Your task to perform on an android device: set default search engine in the chrome app Image 0: 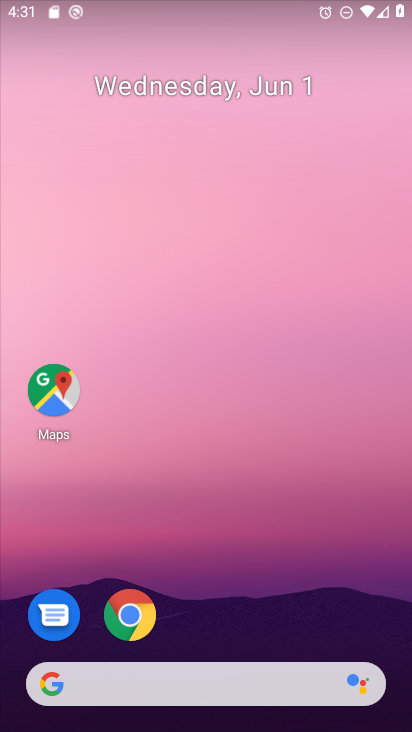
Step 0: press home button
Your task to perform on an android device: set default search engine in the chrome app Image 1: 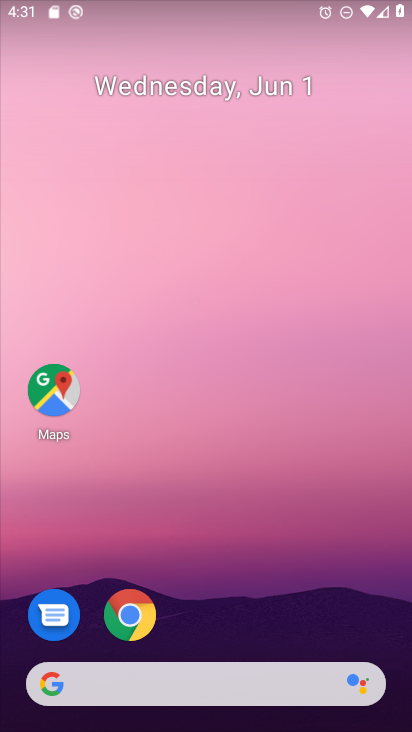
Step 1: click (133, 613)
Your task to perform on an android device: set default search engine in the chrome app Image 2: 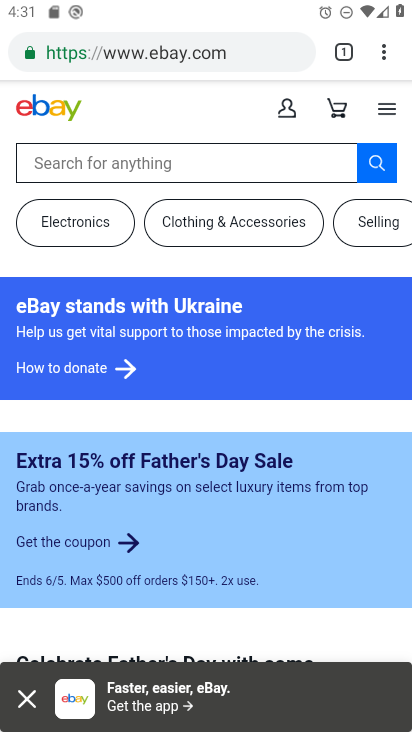
Step 2: click (386, 56)
Your task to perform on an android device: set default search engine in the chrome app Image 3: 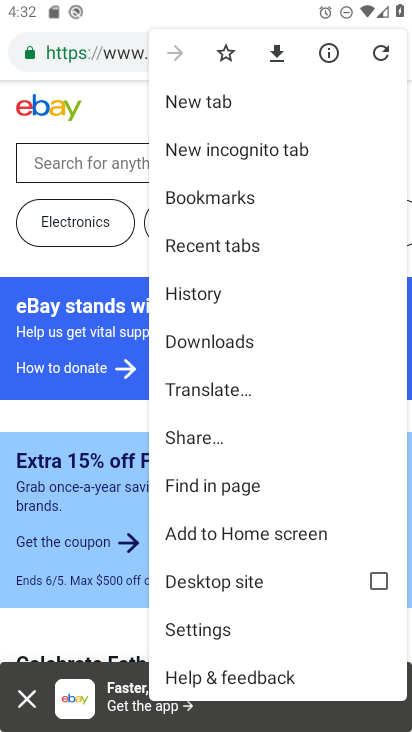
Step 3: click (238, 626)
Your task to perform on an android device: set default search engine in the chrome app Image 4: 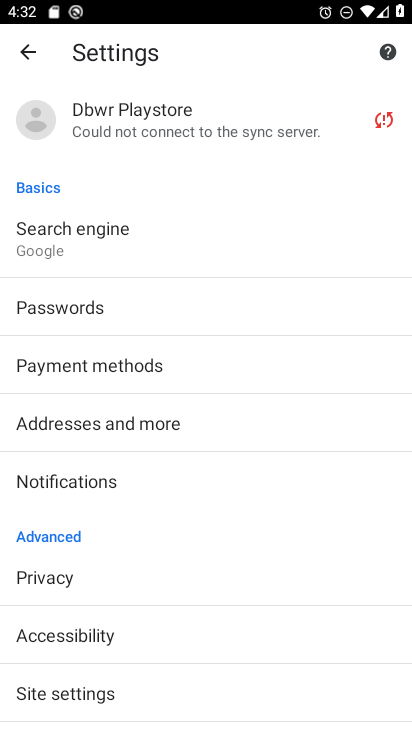
Step 4: click (116, 239)
Your task to perform on an android device: set default search engine in the chrome app Image 5: 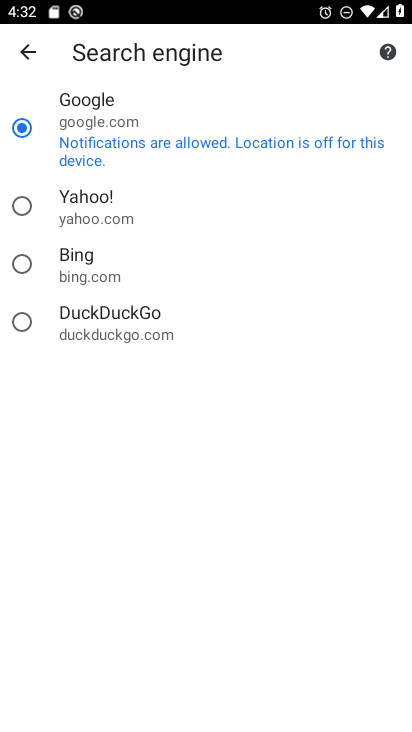
Step 5: click (26, 198)
Your task to perform on an android device: set default search engine in the chrome app Image 6: 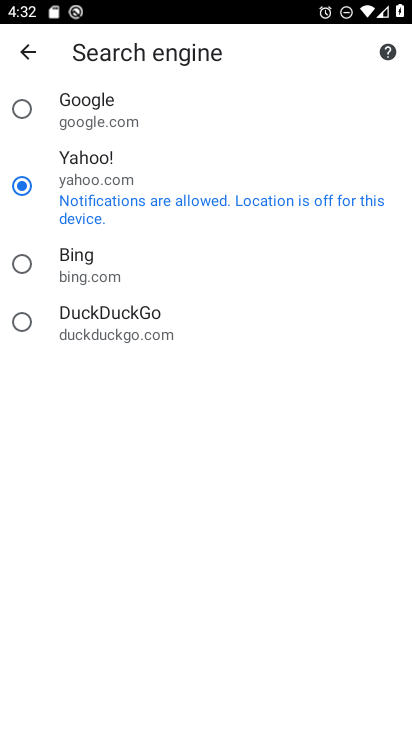
Step 6: task complete